Your task to perform on an android device: create a new album in the google photos Image 0: 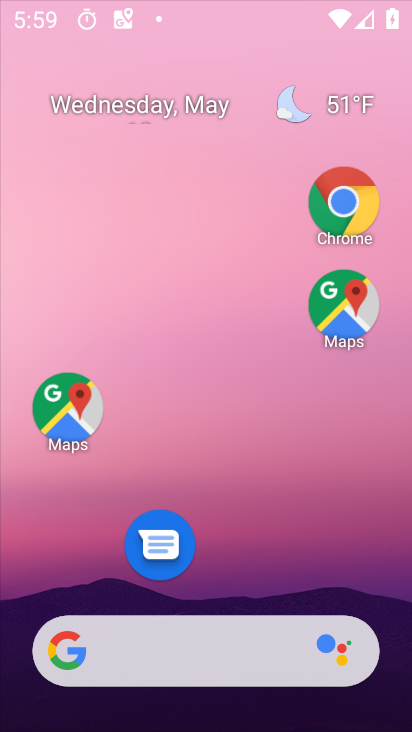
Step 0: drag from (254, 579) to (335, 104)
Your task to perform on an android device: create a new album in the google photos Image 1: 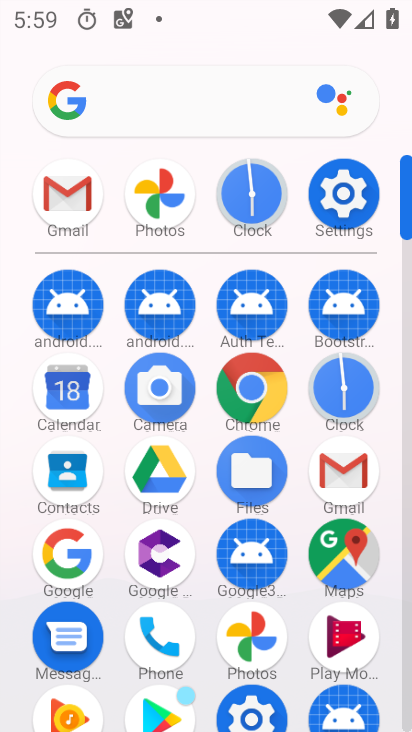
Step 1: click (242, 634)
Your task to perform on an android device: create a new album in the google photos Image 2: 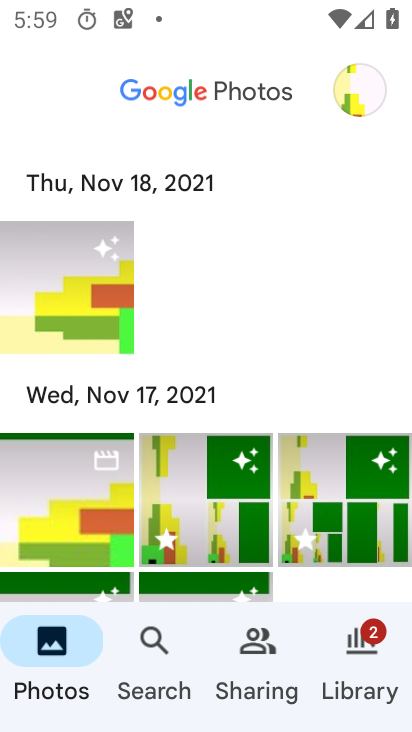
Step 2: click (162, 664)
Your task to perform on an android device: create a new album in the google photos Image 3: 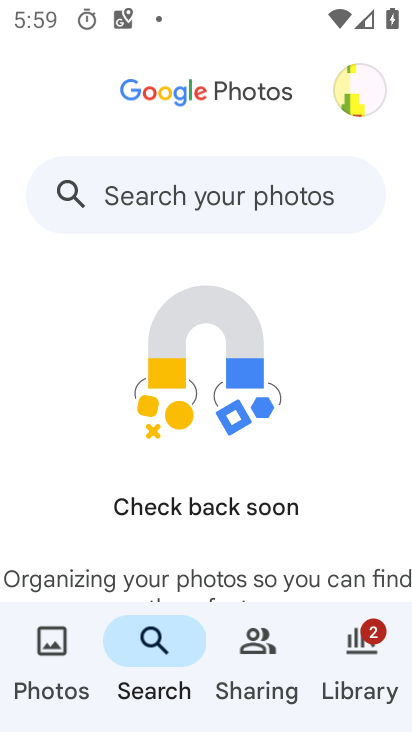
Step 3: click (261, 671)
Your task to perform on an android device: create a new album in the google photos Image 4: 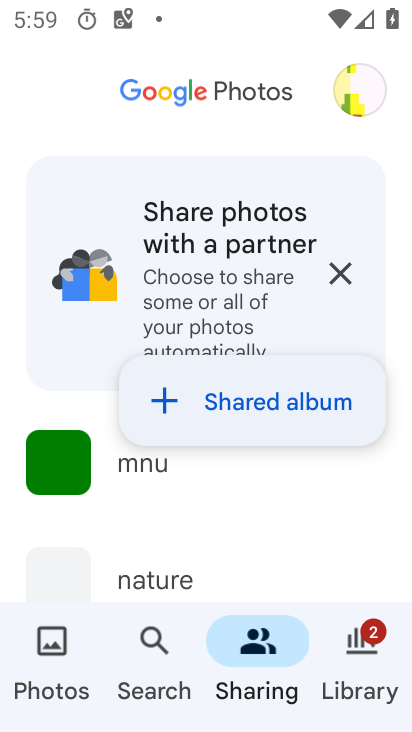
Step 4: click (371, 688)
Your task to perform on an android device: create a new album in the google photos Image 5: 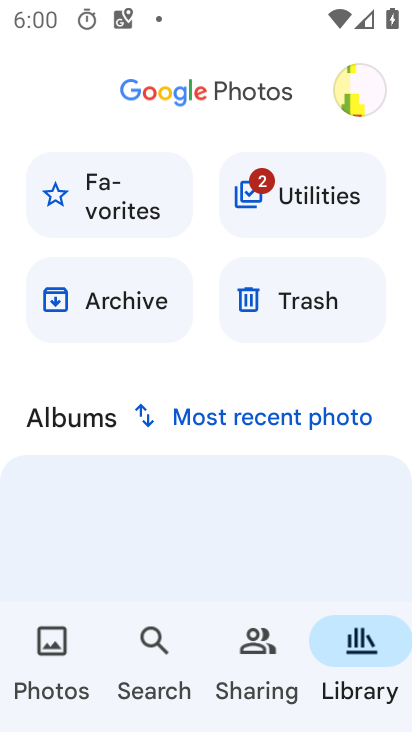
Step 5: drag from (250, 531) to (230, 281)
Your task to perform on an android device: create a new album in the google photos Image 6: 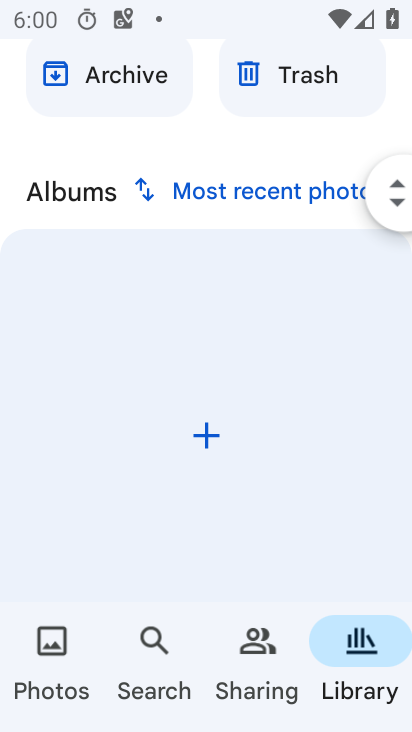
Step 6: click (199, 432)
Your task to perform on an android device: create a new album in the google photos Image 7: 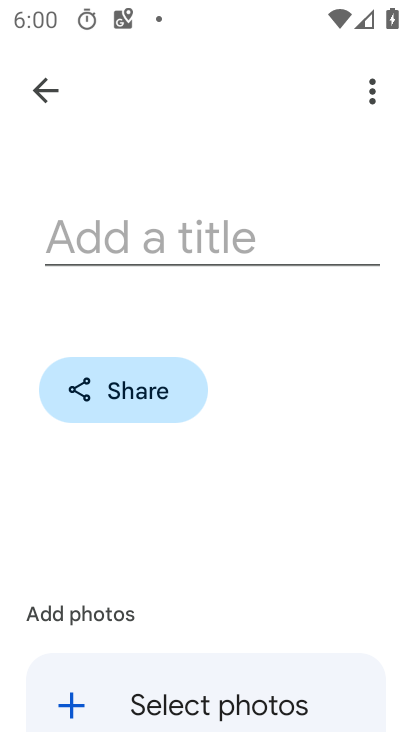
Step 7: click (125, 244)
Your task to perform on an android device: create a new album in the google photos Image 8: 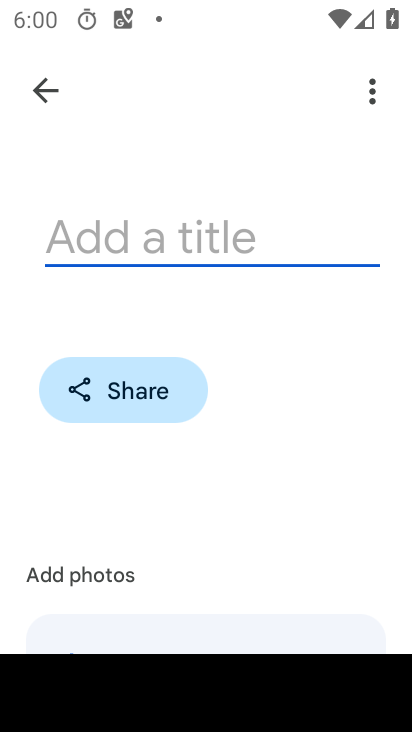
Step 8: drag from (182, 543) to (218, 309)
Your task to perform on an android device: create a new album in the google photos Image 9: 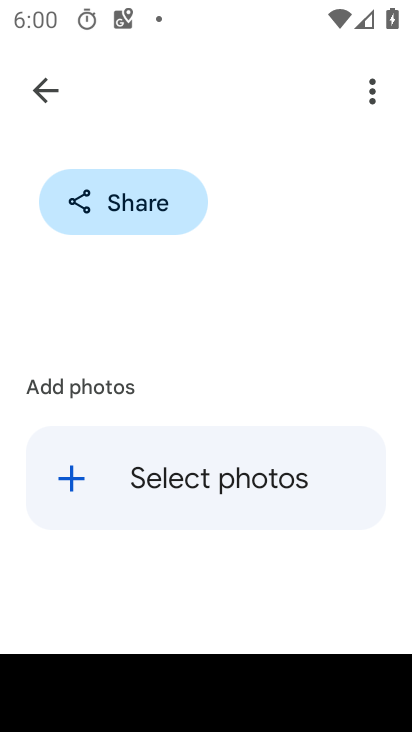
Step 9: drag from (189, 279) to (177, 529)
Your task to perform on an android device: create a new album in the google photos Image 10: 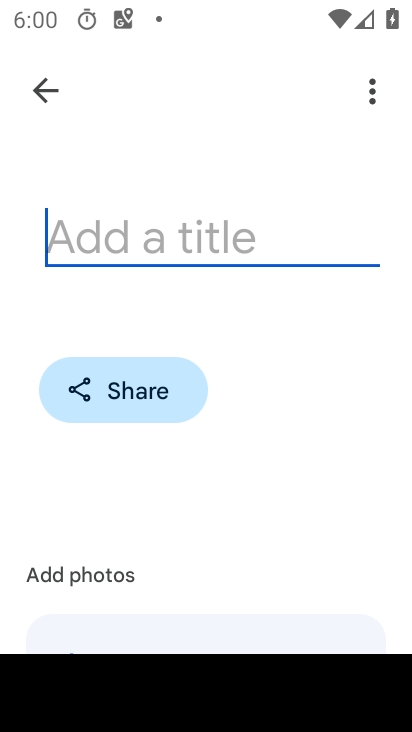
Step 10: click (149, 248)
Your task to perform on an android device: create a new album in the google photos Image 11: 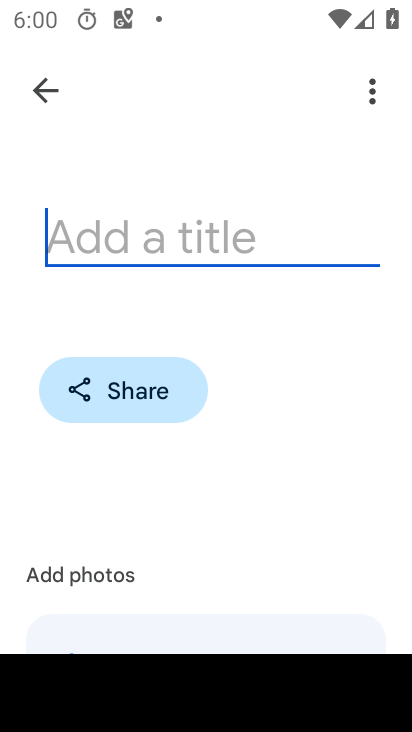
Step 11: type "Yasir"
Your task to perform on an android device: create a new album in the google photos Image 12: 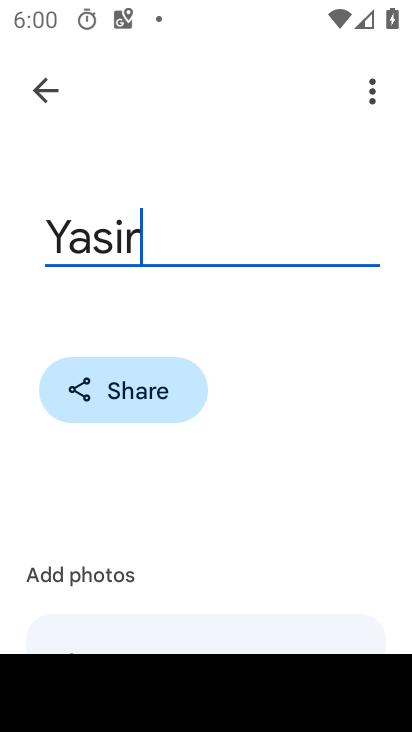
Step 12: click (314, 93)
Your task to perform on an android device: create a new album in the google photos Image 13: 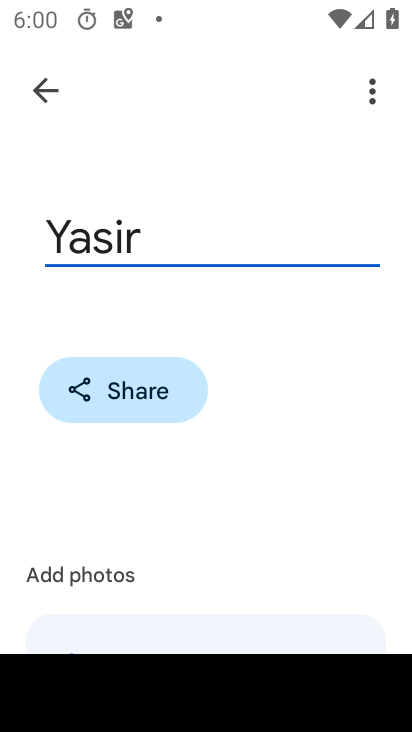
Step 13: drag from (219, 461) to (212, 132)
Your task to perform on an android device: create a new album in the google photos Image 14: 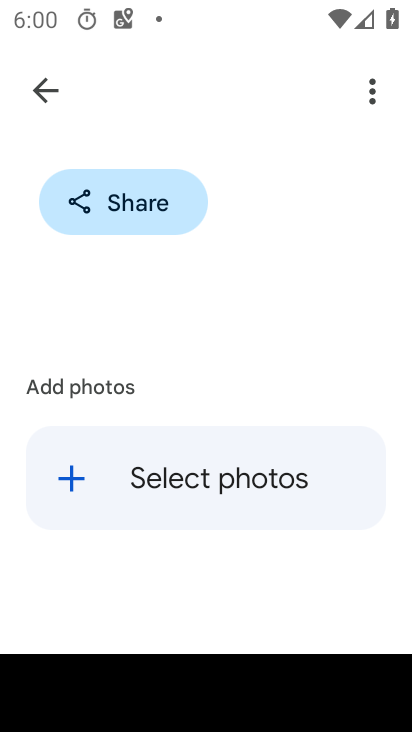
Step 14: click (146, 480)
Your task to perform on an android device: create a new album in the google photos Image 15: 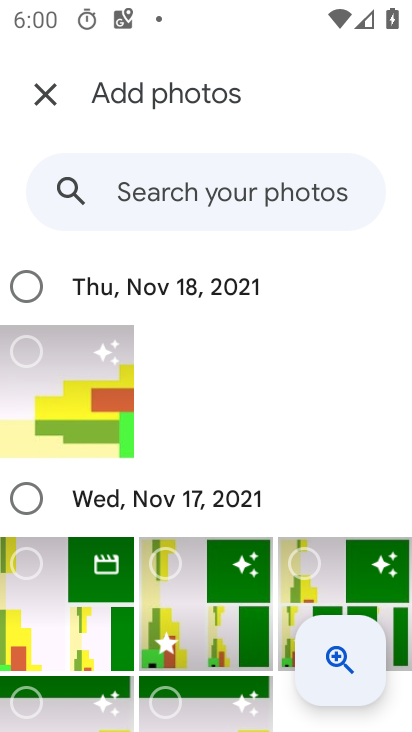
Step 15: click (30, 292)
Your task to perform on an android device: create a new album in the google photos Image 16: 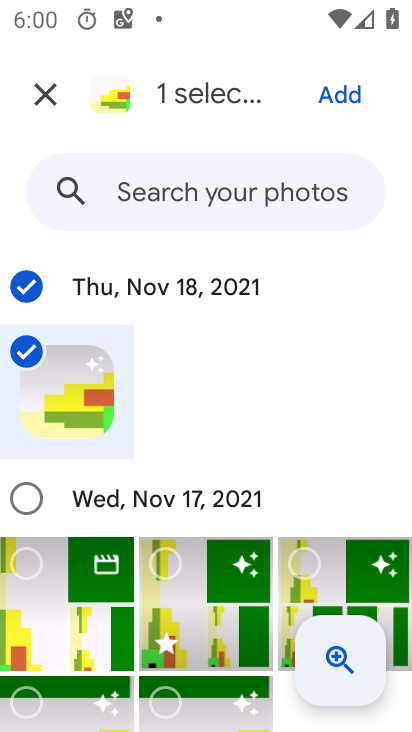
Step 16: click (353, 98)
Your task to perform on an android device: create a new album in the google photos Image 17: 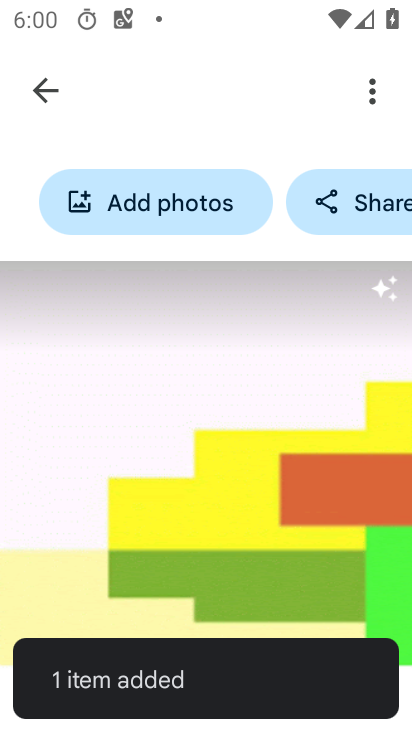
Step 17: task complete